Your task to perform on an android device: Search for Italian restaurants on Maps Image 0: 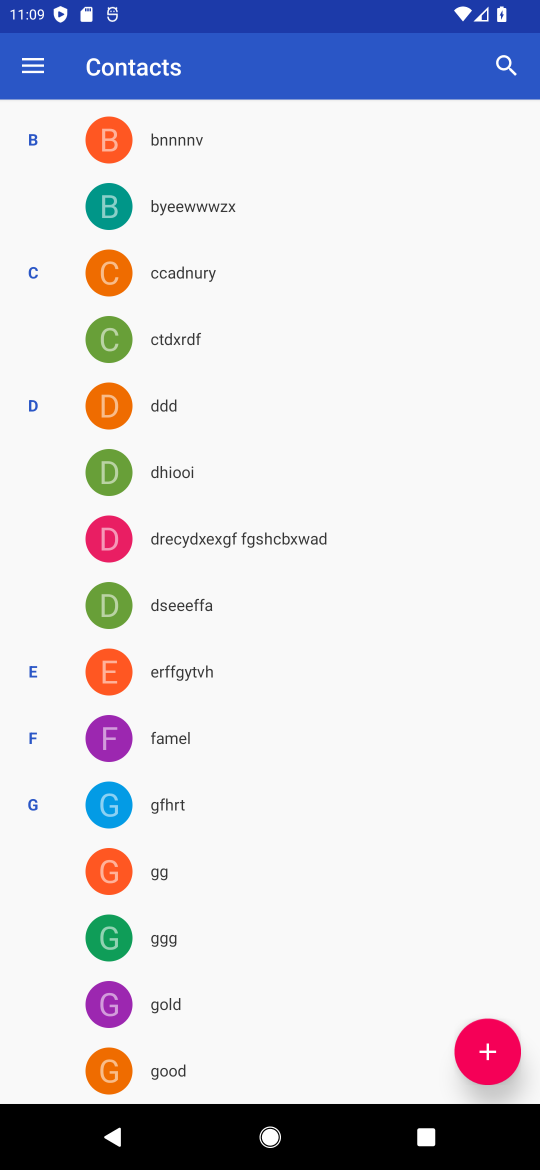
Step 0: press home button
Your task to perform on an android device: Search for Italian restaurants on Maps Image 1: 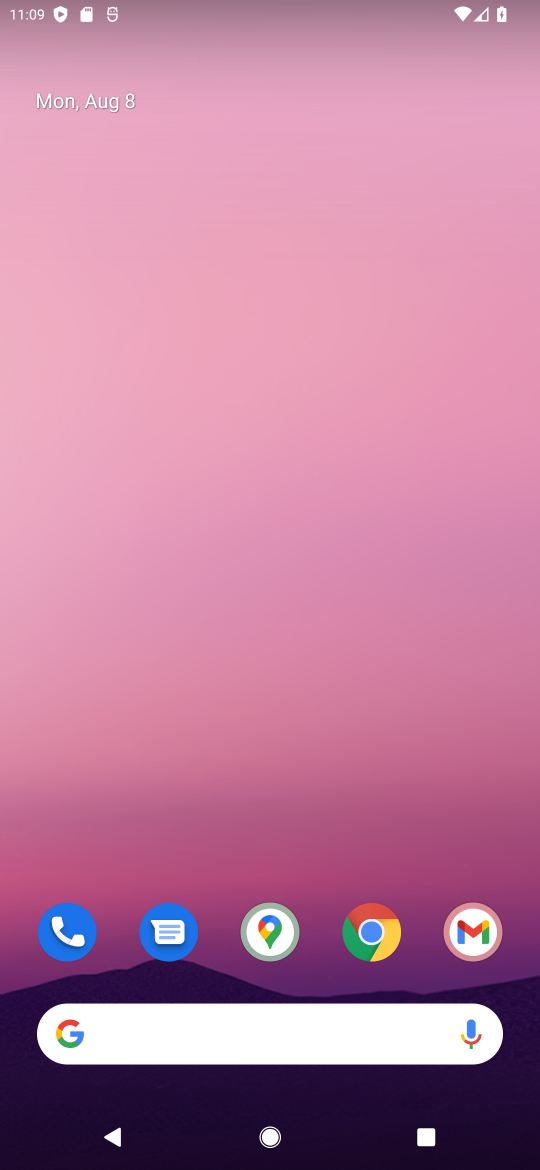
Step 1: click (266, 917)
Your task to perform on an android device: Search for Italian restaurants on Maps Image 2: 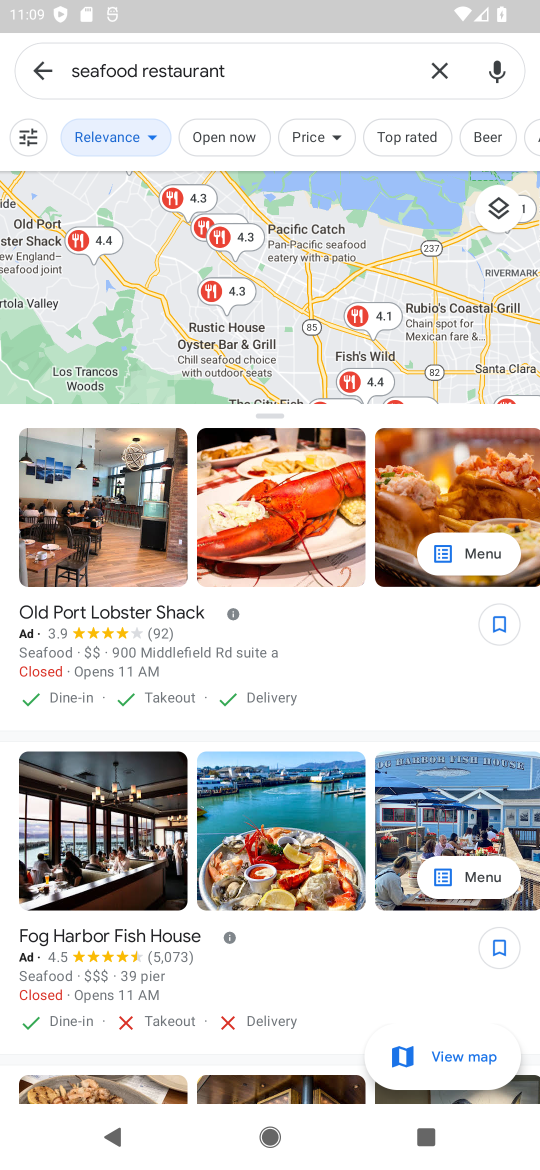
Step 2: click (434, 64)
Your task to perform on an android device: Search for Italian restaurants on Maps Image 3: 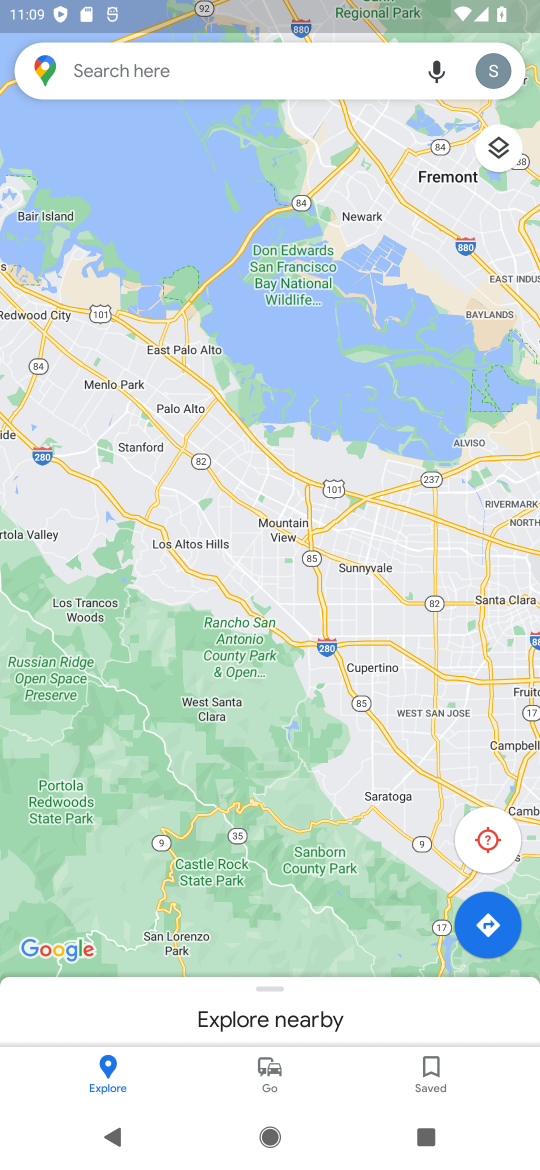
Step 3: click (374, 67)
Your task to perform on an android device: Search for Italian restaurants on Maps Image 4: 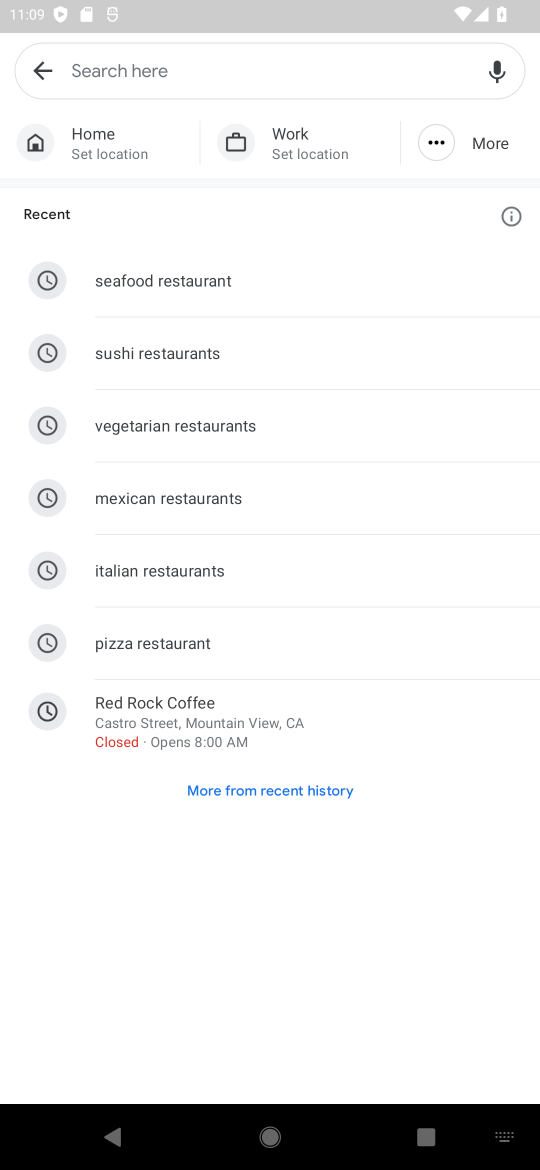
Step 4: click (119, 553)
Your task to perform on an android device: Search for Italian restaurants on Maps Image 5: 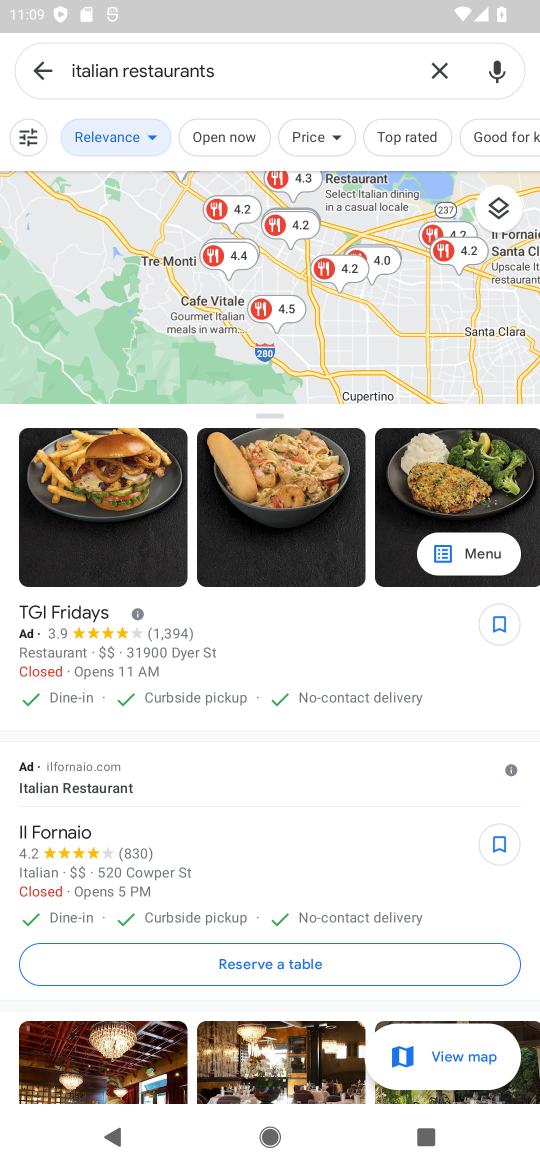
Step 5: task complete